Your task to perform on an android device: delete the emails in spam in the gmail app Image 0: 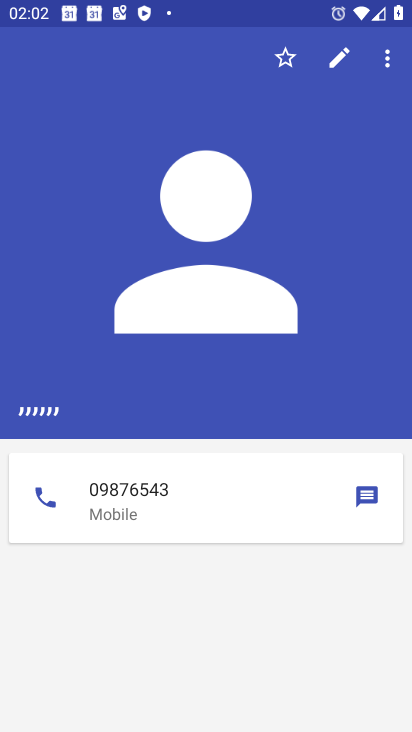
Step 0: press home button
Your task to perform on an android device: delete the emails in spam in the gmail app Image 1: 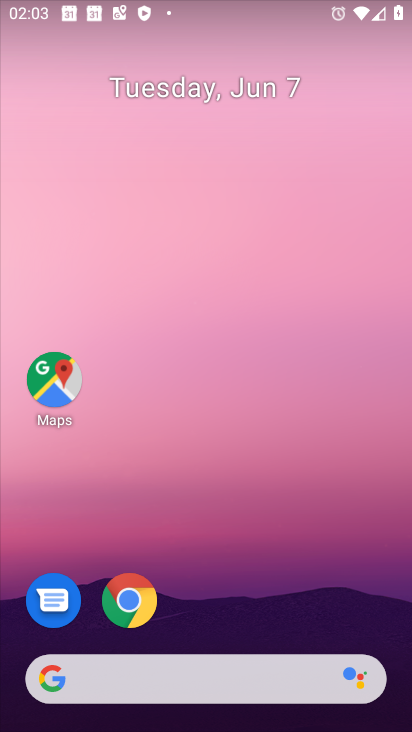
Step 1: drag from (233, 722) to (225, 101)
Your task to perform on an android device: delete the emails in spam in the gmail app Image 2: 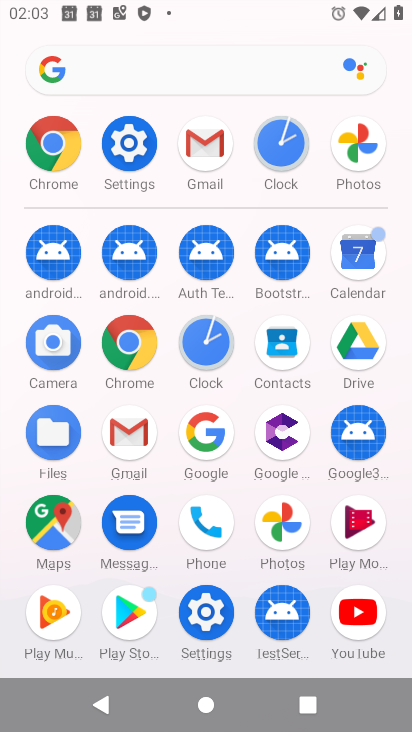
Step 2: click (133, 426)
Your task to perform on an android device: delete the emails in spam in the gmail app Image 3: 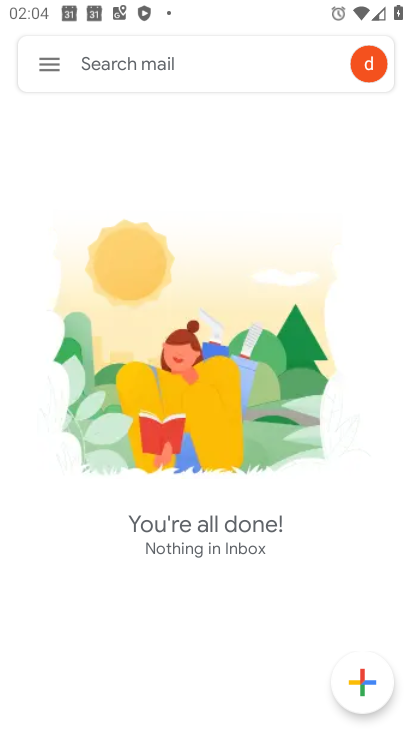
Step 3: click (46, 56)
Your task to perform on an android device: delete the emails in spam in the gmail app Image 4: 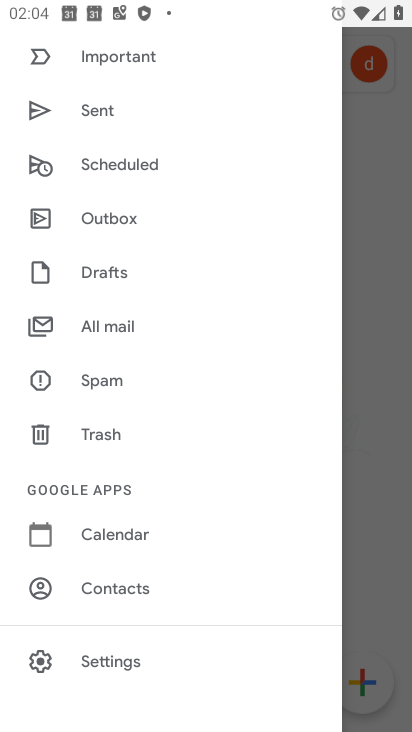
Step 4: click (106, 384)
Your task to perform on an android device: delete the emails in spam in the gmail app Image 5: 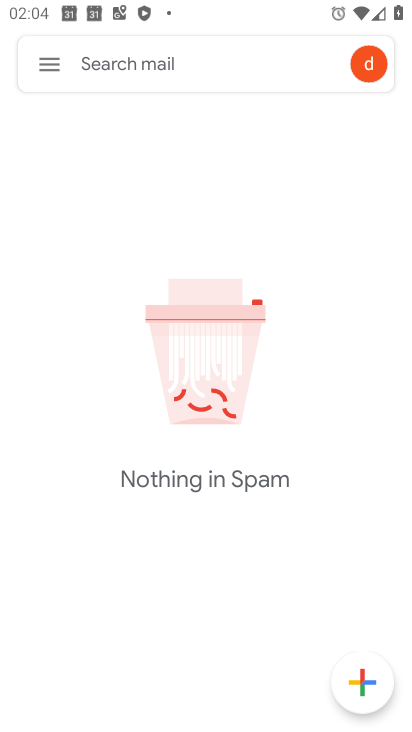
Step 5: task complete